Your task to perform on an android device: change the clock display to show seconds Image 0: 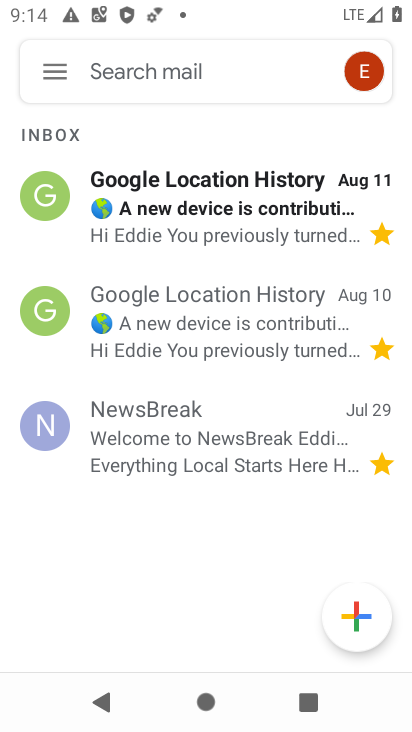
Step 0: press home button
Your task to perform on an android device: change the clock display to show seconds Image 1: 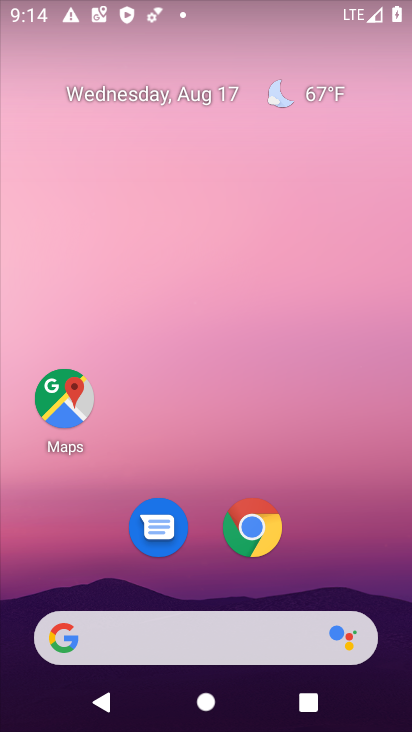
Step 1: drag from (203, 583) to (202, 26)
Your task to perform on an android device: change the clock display to show seconds Image 2: 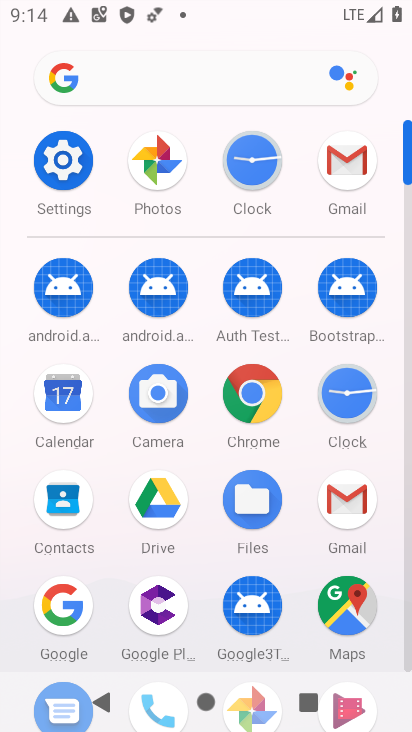
Step 2: click (236, 141)
Your task to perform on an android device: change the clock display to show seconds Image 3: 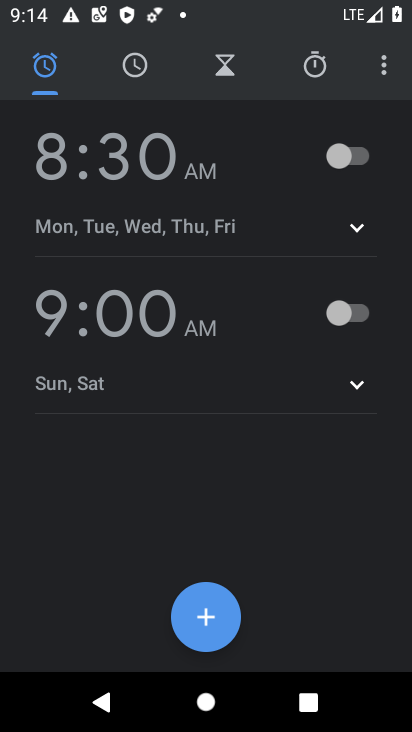
Step 3: click (396, 61)
Your task to perform on an android device: change the clock display to show seconds Image 4: 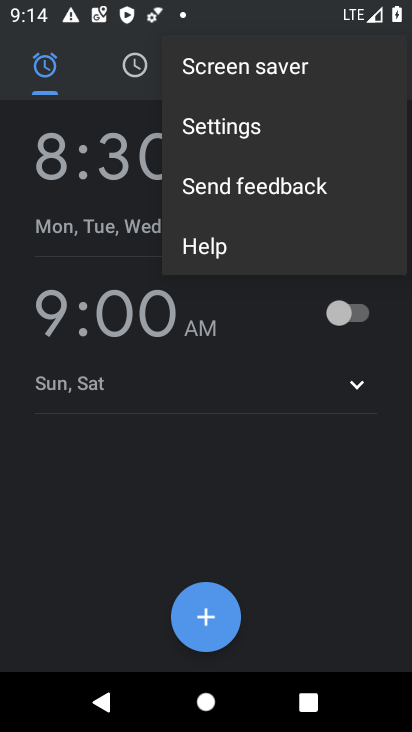
Step 4: click (264, 120)
Your task to perform on an android device: change the clock display to show seconds Image 5: 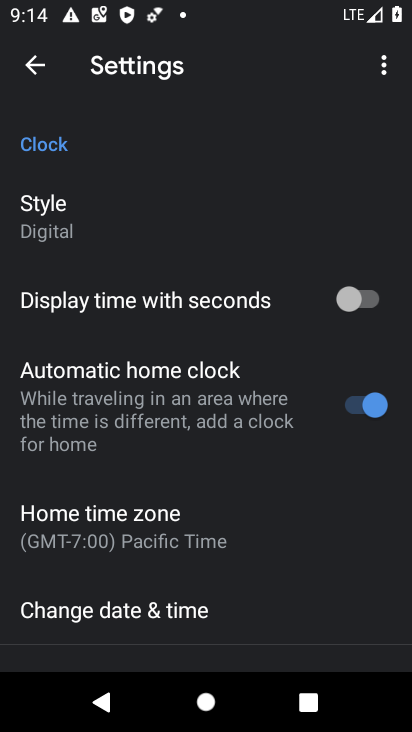
Step 5: click (374, 307)
Your task to perform on an android device: change the clock display to show seconds Image 6: 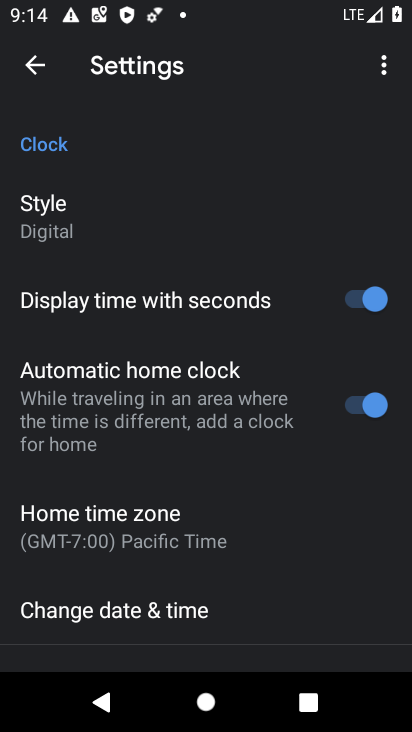
Step 6: task complete